Your task to perform on an android device: change your default location settings in chrome Image 0: 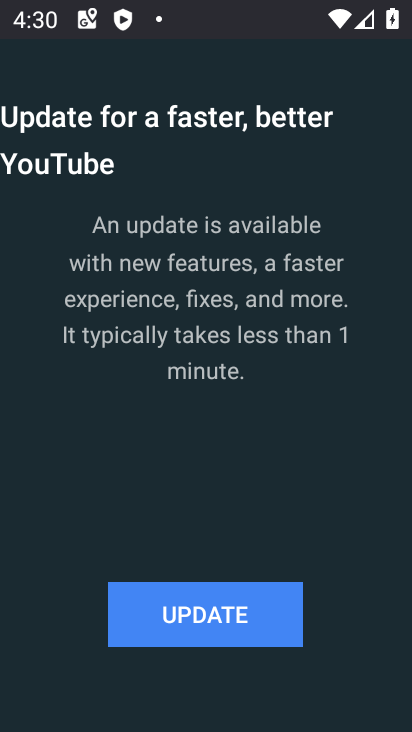
Step 0: press home button
Your task to perform on an android device: change your default location settings in chrome Image 1: 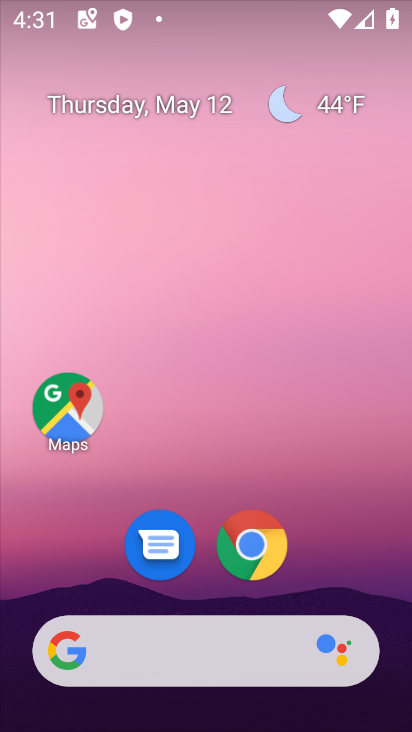
Step 1: click (258, 544)
Your task to perform on an android device: change your default location settings in chrome Image 2: 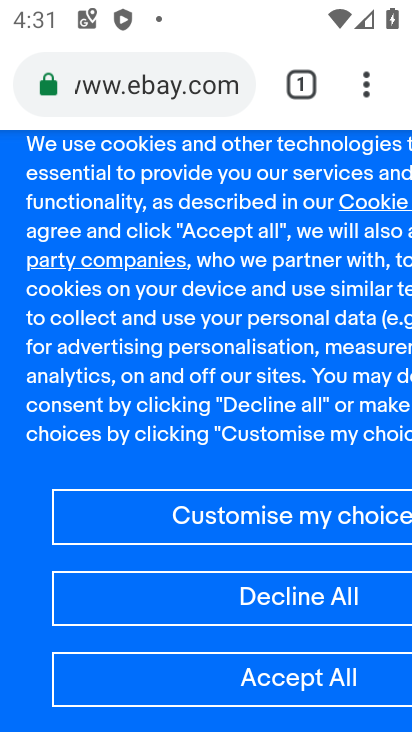
Step 2: drag from (374, 80) to (213, 599)
Your task to perform on an android device: change your default location settings in chrome Image 3: 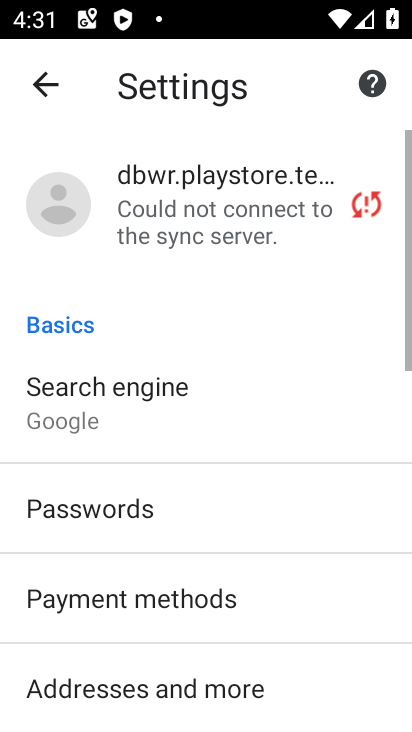
Step 3: drag from (209, 667) to (249, 429)
Your task to perform on an android device: change your default location settings in chrome Image 4: 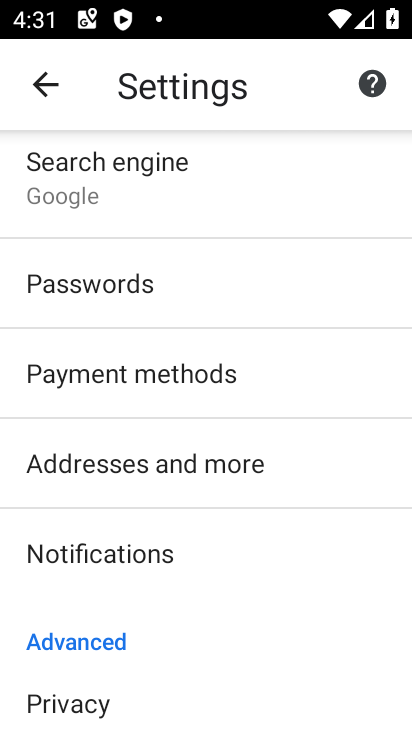
Step 4: drag from (183, 607) to (259, 184)
Your task to perform on an android device: change your default location settings in chrome Image 5: 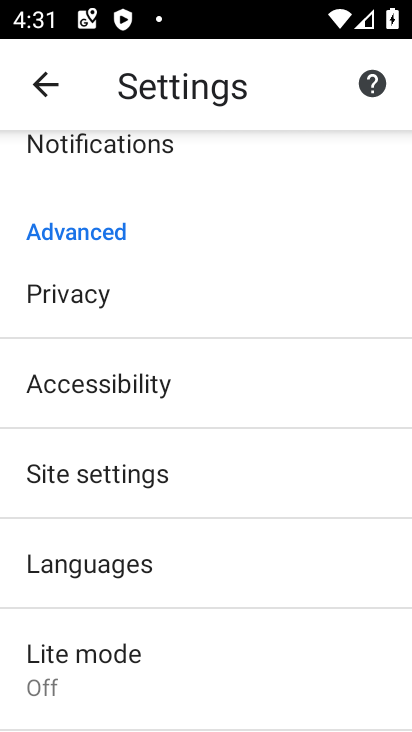
Step 5: click (174, 478)
Your task to perform on an android device: change your default location settings in chrome Image 6: 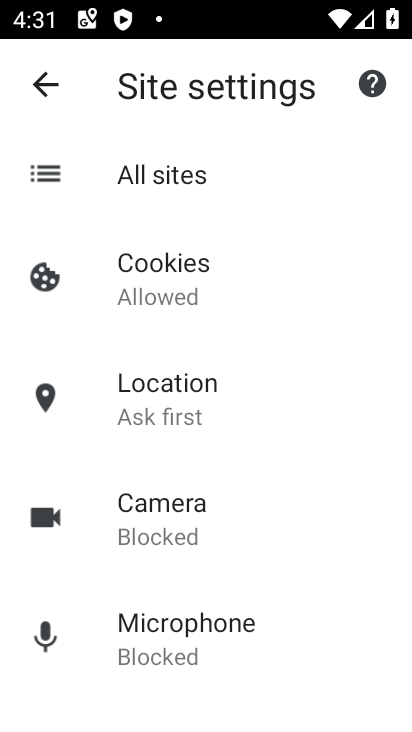
Step 6: drag from (208, 542) to (235, 249)
Your task to perform on an android device: change your default location settings in chrome Image 7: 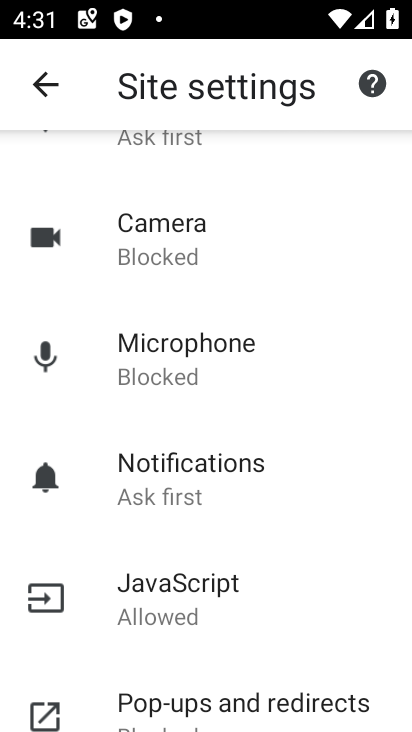
Step 7: drag from (248, 567) to (328, 217)
Your task to perform on an android device: change your default location settings in chrome Image 8: 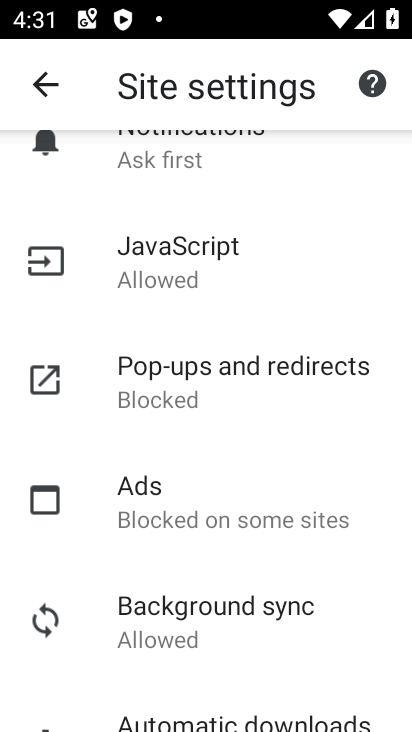
Step 8: drag from (276, 580) to (308, 207)
Your task to perform on an android device: change your default location settings in chrome Image 9: 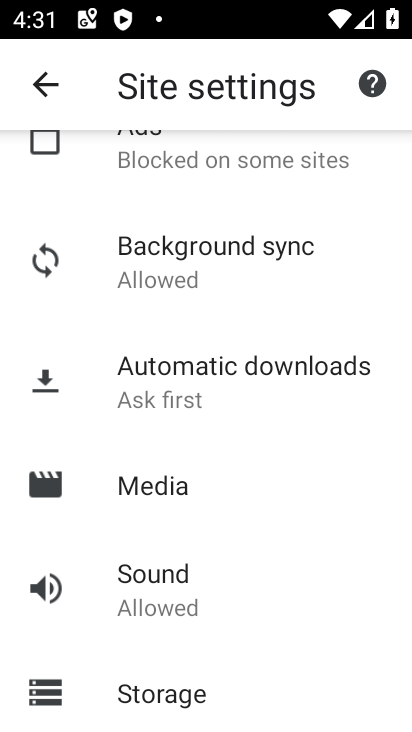
Step 9: drag from (210, 499) to (291, 708)
Your task to perform on an android device: change your default location settings in chrome Image 10: 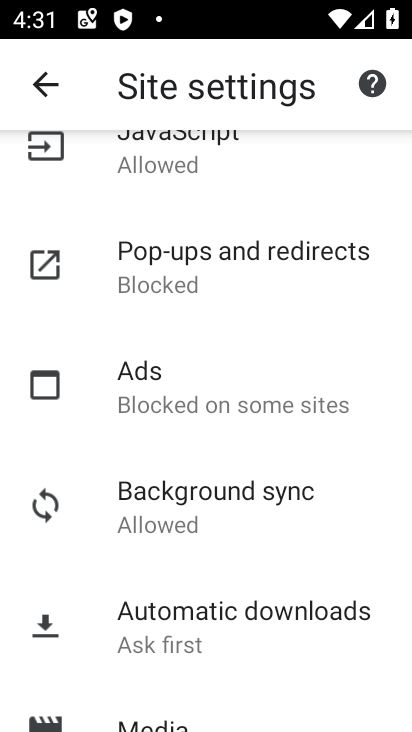
Step 10: drag from (233, 272) to (277, 644)
Your task to perform on an android device: change your default location settings in chrome Image 11: 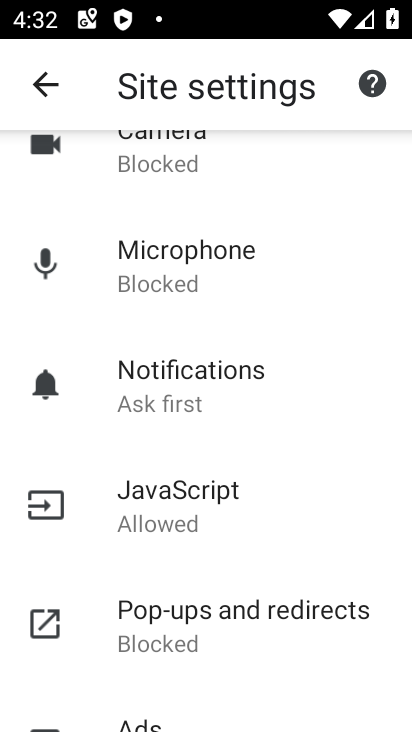
Step 11: drag from (249, 340) to (281, 639)
Your task to perform on an android device: change your default location settings in chrome Image 12: 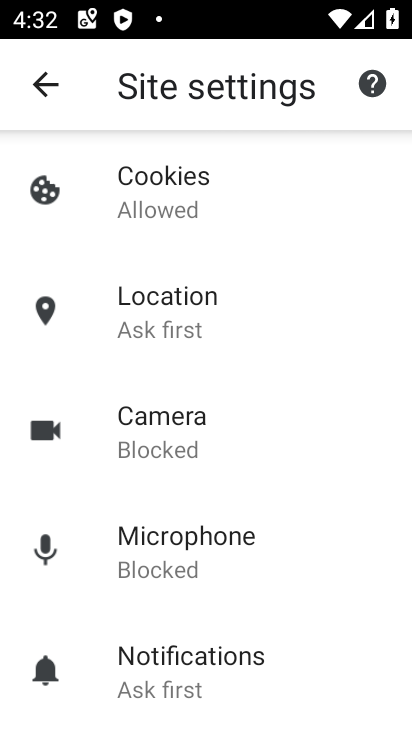
Step 12: click (132, 307)
Your task to perform on an android device: change your default location settings in chrome Image 13: 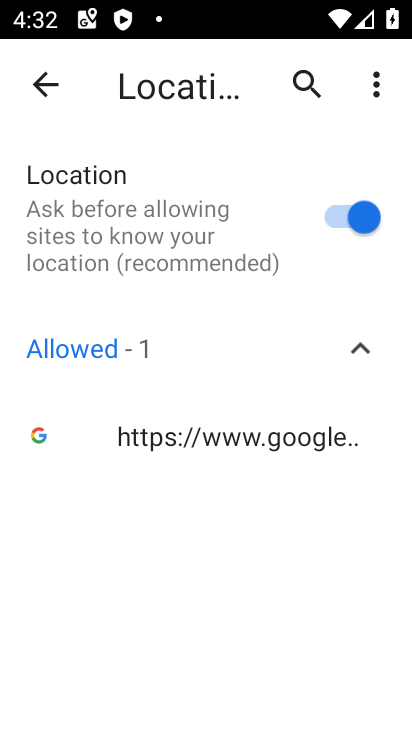
Step 13: click (356, 214)
Your task to perform on an android device: change your default location settings in chrome Image 14: 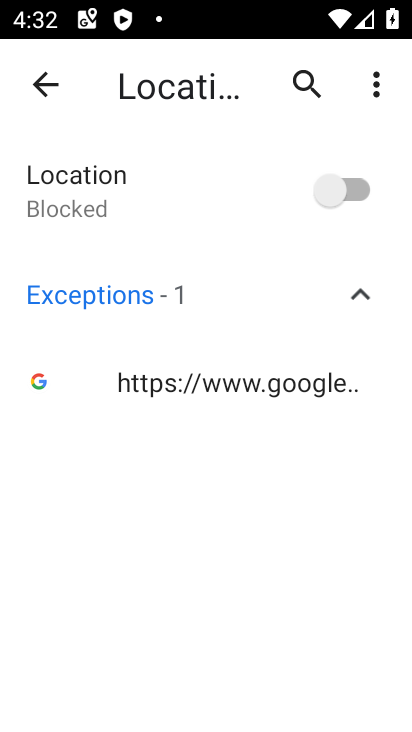
Step 14: task complete